Your task to perform on an android device: What is the recent news? Image 0: 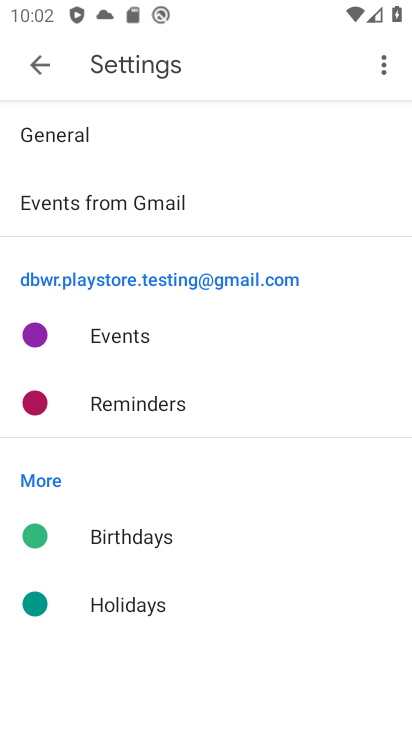
Step 0: press home button
Your task to perform on an android device: What is the recent news? Image 1: 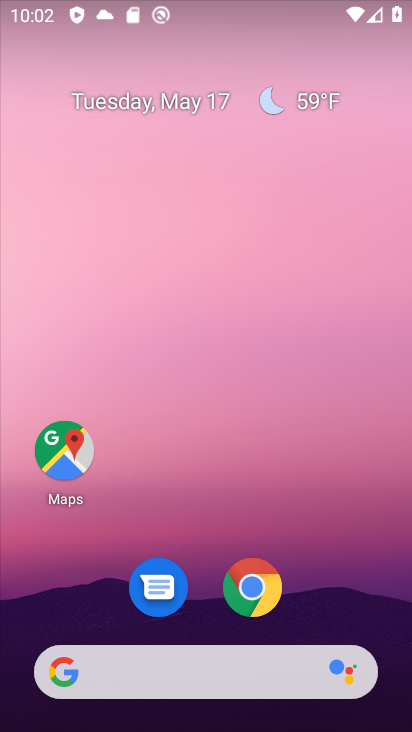
Step 1: click (251, 584)
Your task to perform on an android device: What is the recent news? Image 2: 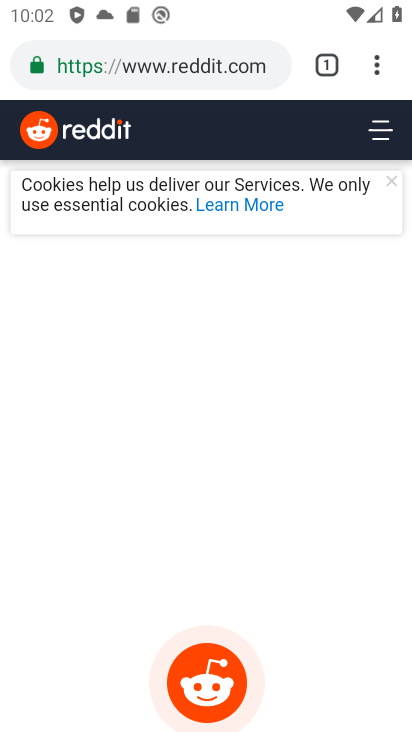
Step 2: click (331, 60)
Your task to perform on an android device: What is the recent news? Image 3: 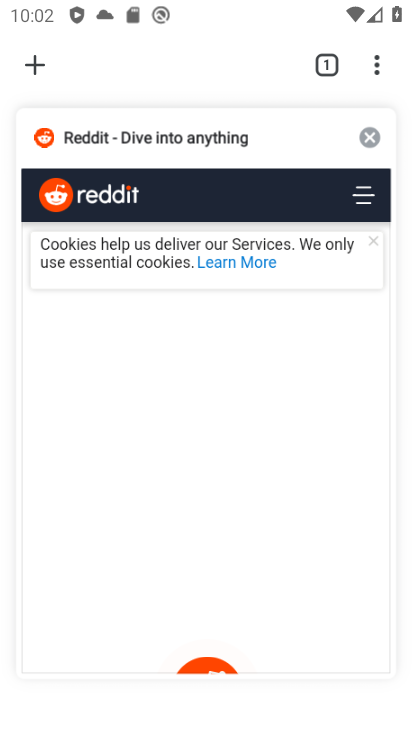
Step 3: click (27, 73)
Your task to perform on an android device: What is the recent news? Image 4: 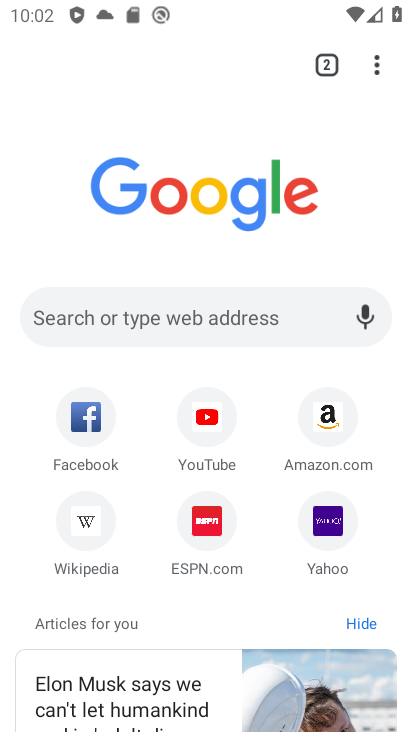
Step 4: click (177, 305)
Your task to perform on an android device: What is the recent news? Image 5: 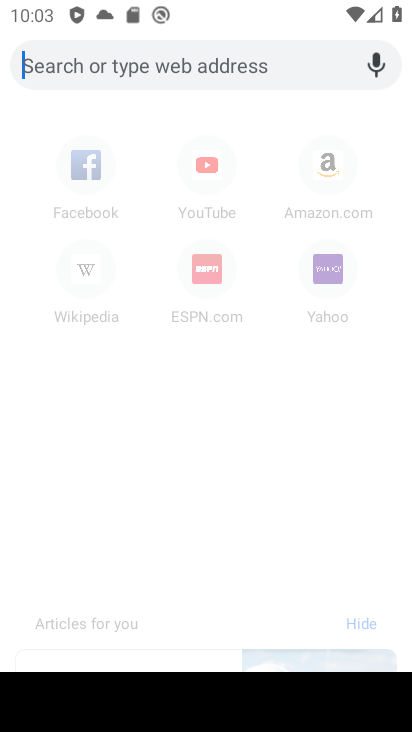
Step 5: type "recent news"
Your task to perform on an android device: What is the recent news? Image 6: 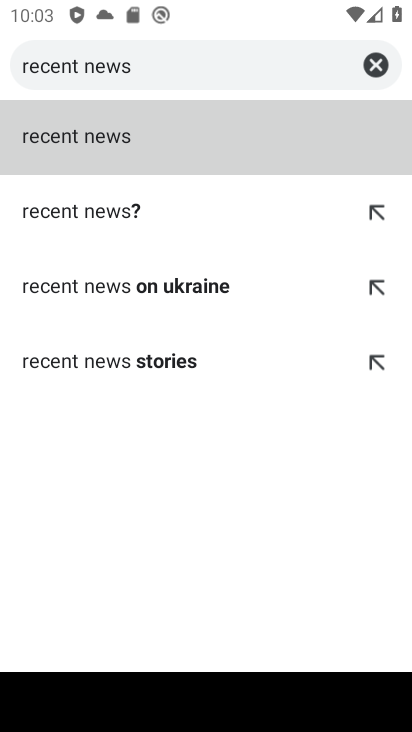
Step 6: click (104, 155)
Your task to perform on an android device: What is the recent news? Image 7: 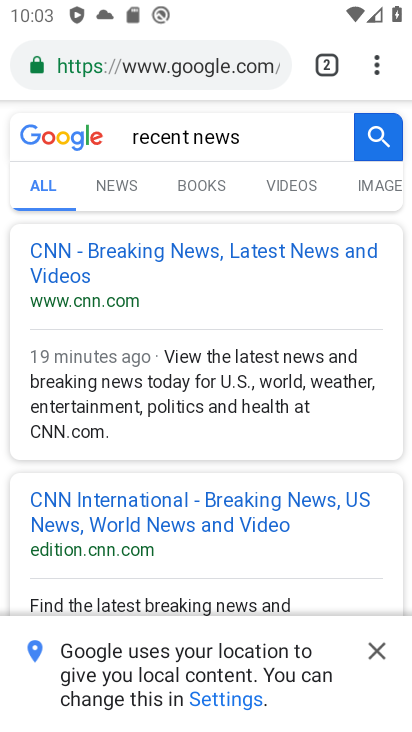
Step 7: click (107, 178)
Your task to perform on an android device: What is the recent news? Image 8: 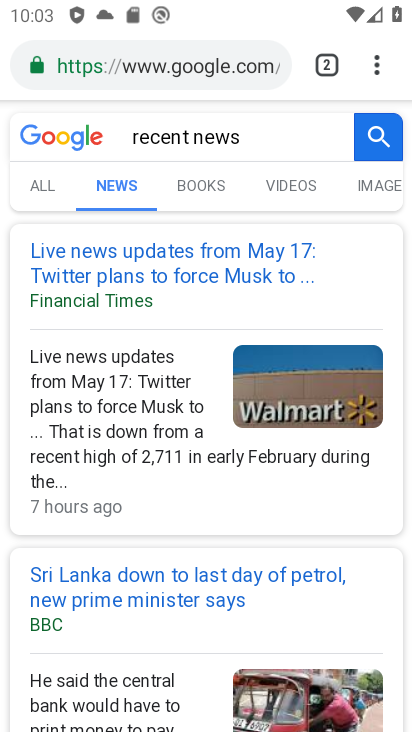
Step 8: task complete